Your task to perform on an android device: find which apps use the phone's location Image 0: 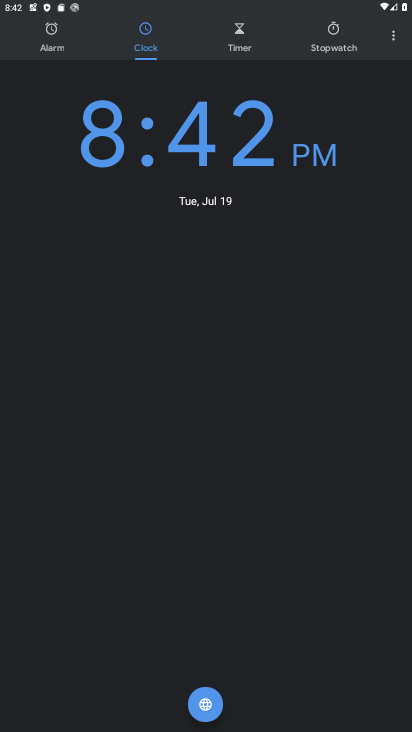
Step 0: press home button
Your task to perform on an android device: find which apps use the phone's location Image 1: 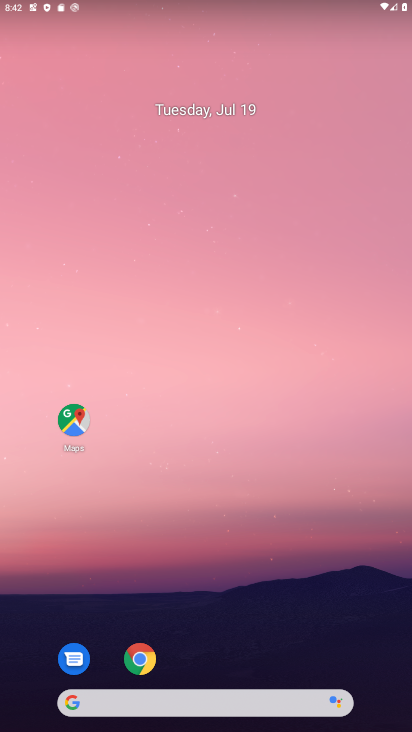
Step 1: drag from (156, 686) to (198, 204)
Your task to perform on an android device: find which apps use the phone's location Image 2: 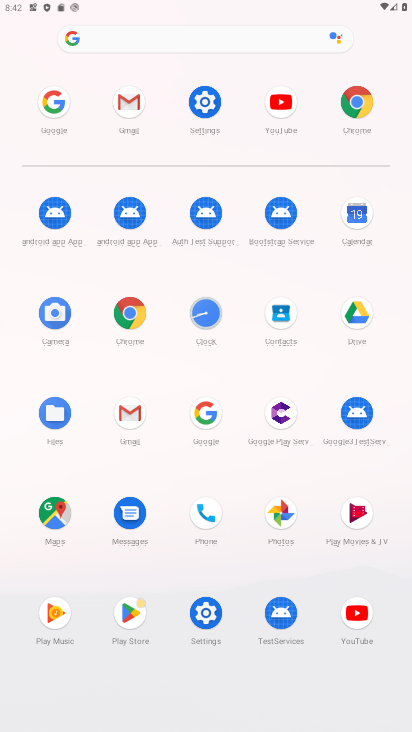
Step 2: click (215, 102)
Your task to perform on an android device: find which apps use the phone's location Image 3: 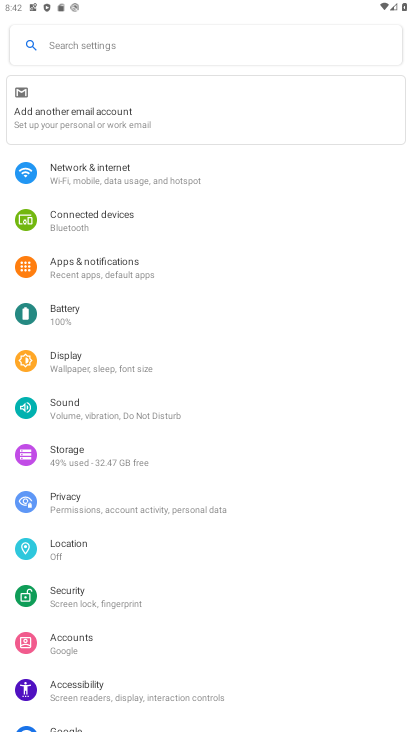
Step 3: click (55, 548)
Your task to perform on an android device: find which apps use the phone's location Image 4: 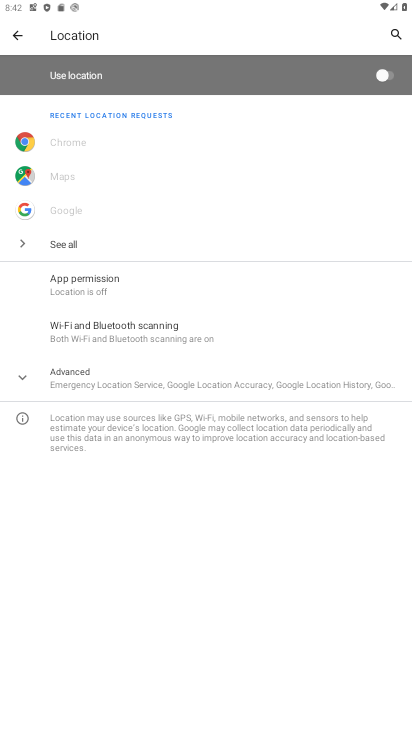
Step 4: click (53, 285)
Your task to perform on an android device: find which apps use the phone's location Image 5: 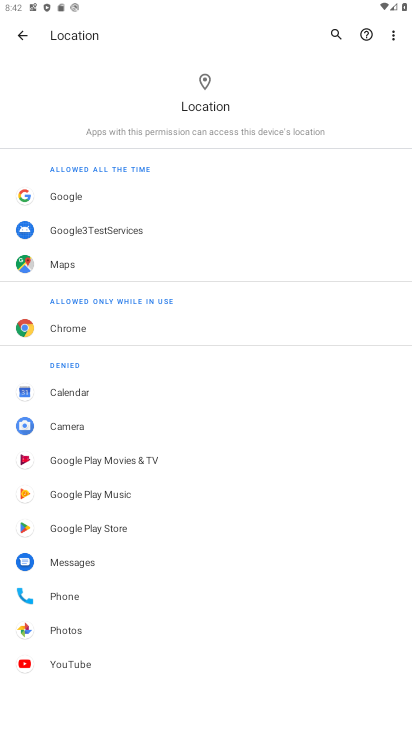
Step 5: task complete